Your task to perform on an android device: Check the news Image 0: 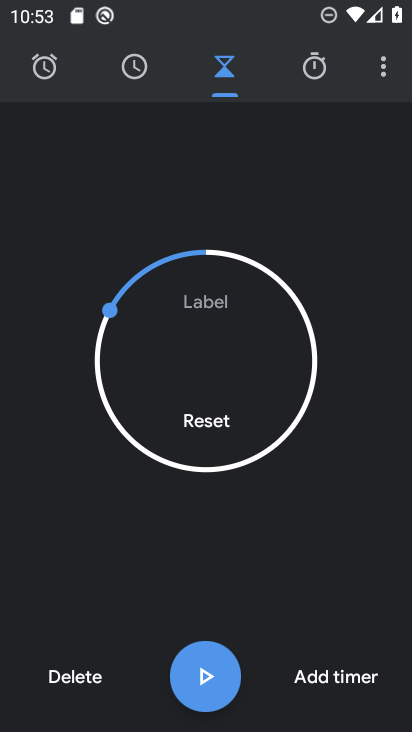
Step 0: press home button
Your task to perform on an android device: Check the news Image 1: 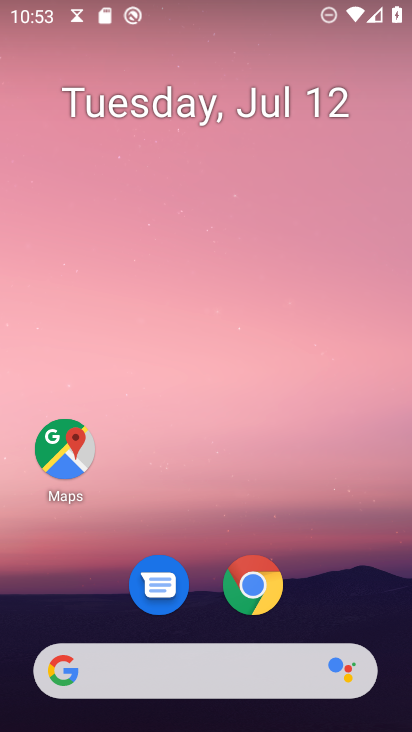
Step 1: click (162, 679)
Your task to perform on an android device: Check the news Image 2: 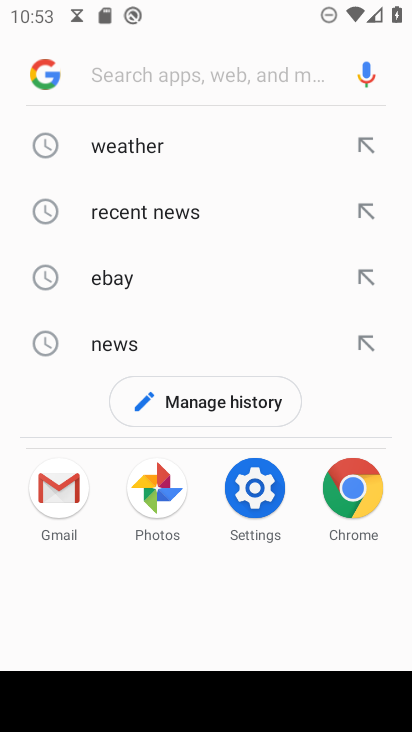
Step 2: click (123, 351)
Your task to perform on an android device: Check the news Image 3: 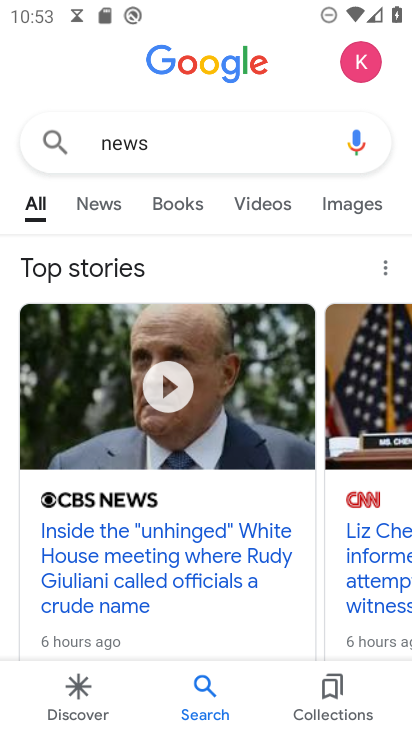
Step 3: click (110, 201)
Your task to perform on an android device: Check the news Image 4: 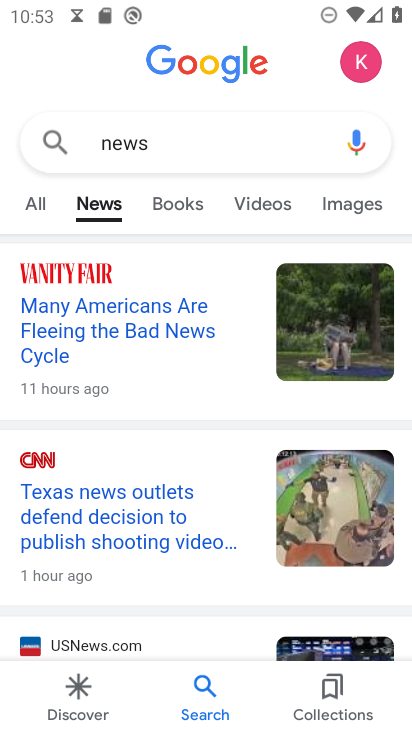
Step 4: task complete